Your task to perform on an android device: move a message to another label in the gmail app Image 0: 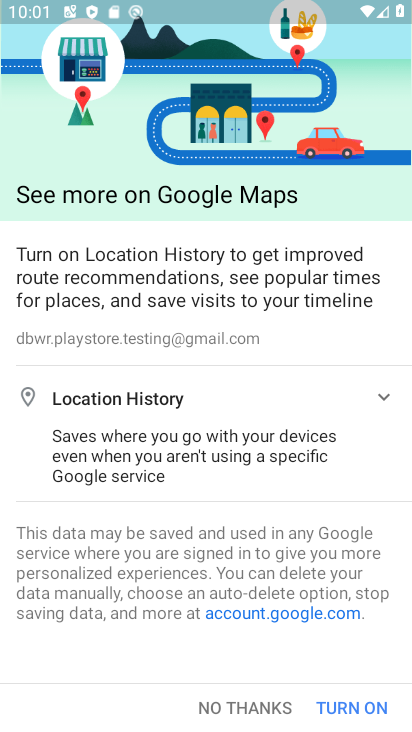
Step 0: click (236, 697)
Your task to perform on an android device: move a message to another label in the gmail app Image 1: 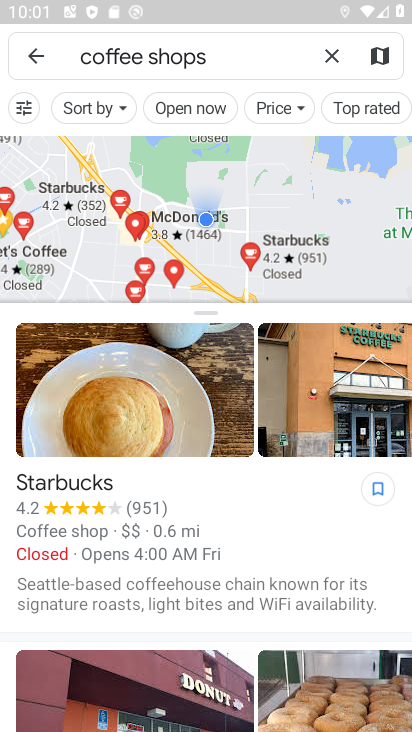
Step 1: press home button
Your task to perform on an android device: move a message to another label in the gmail app Image 2: 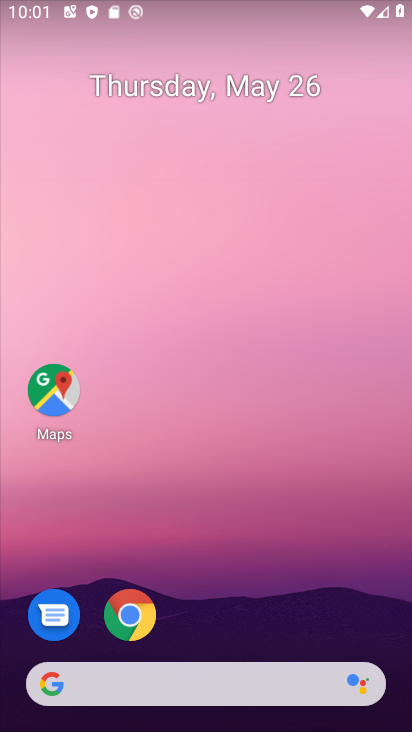
Step 2: drag from (333, 688) to (335, 146)
Your task to perform on an android device: move a message to another label in the gmail app Image 3: 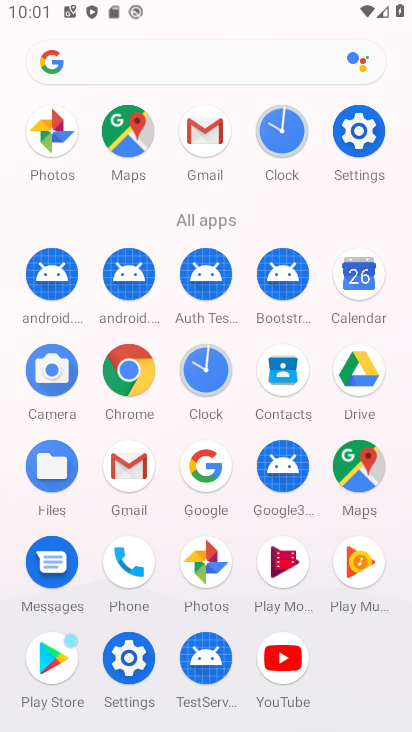
Step 3: click (129, 472)
Your task to perform on an android device: move a message to another label in the gmail app Image 4: 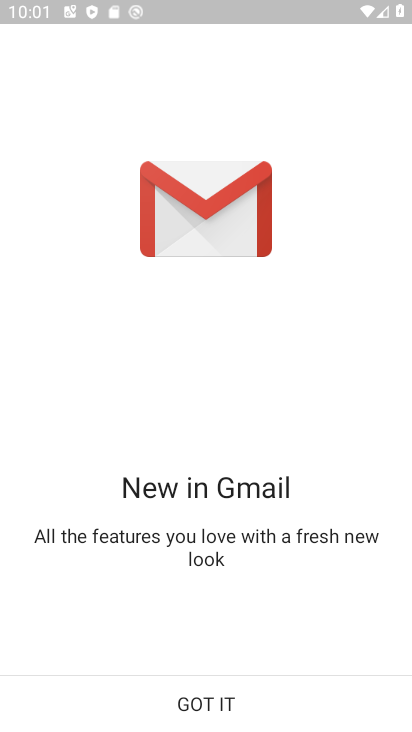
Step 4: click (228, 691)
Your task to perform on an android device: move a message to another label in the gmail app Image 5: 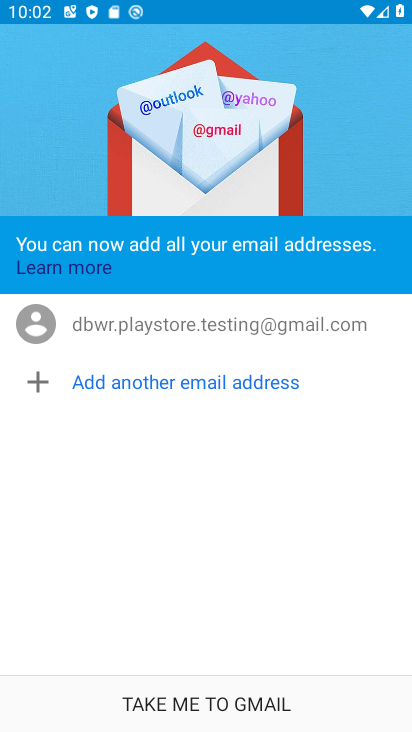
Step 5: click (230, 692)
Your task to perform on an android device: move a message to another label in the gmail app Image 6: 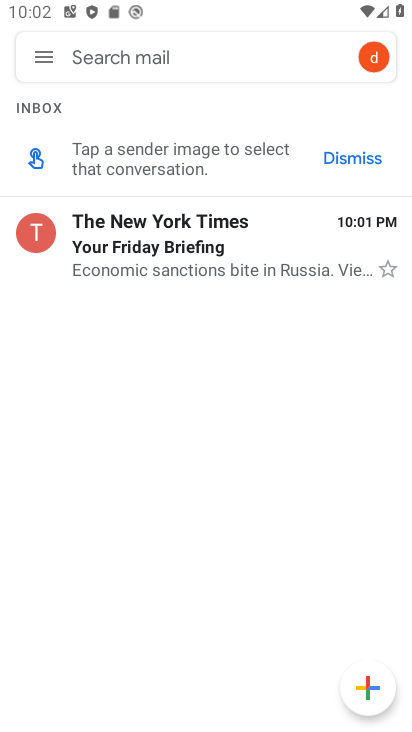
Step 6: click (253, 242)
Your task to perform on an android device: move a message to another label in the gmail app Image 7: 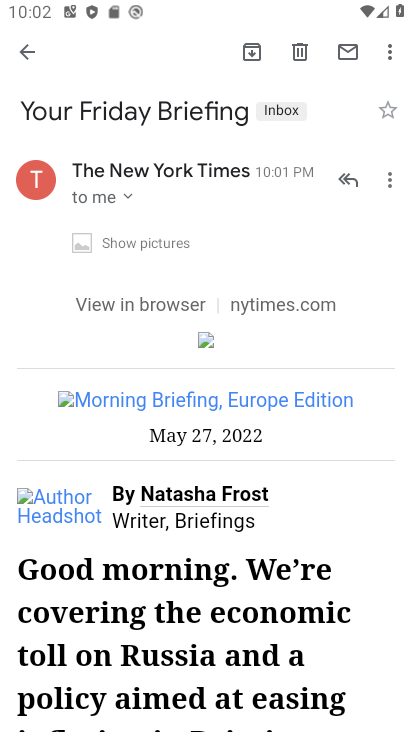
Step 7: click (391, 51)
Your task to perform on an android device: move a message to another label in the gmail app Image 8: 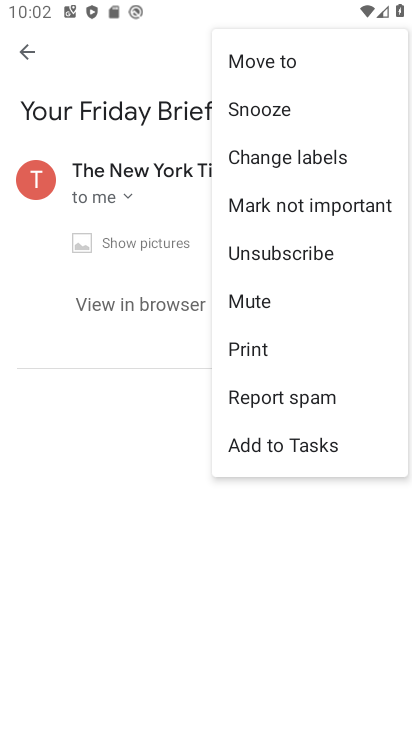
Step 8: click (286, 201)
Your task to perform on an android device: move a message to another label in the gmail app Image 9: 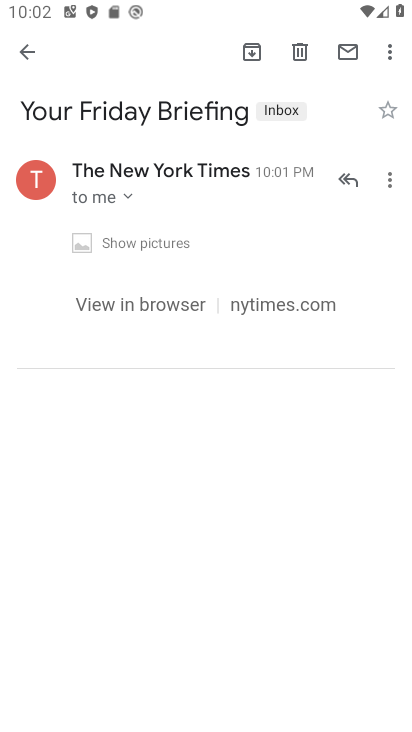
Step 9: task complete